Your task to perform on an android device: Turn off the flashlight Image 0: 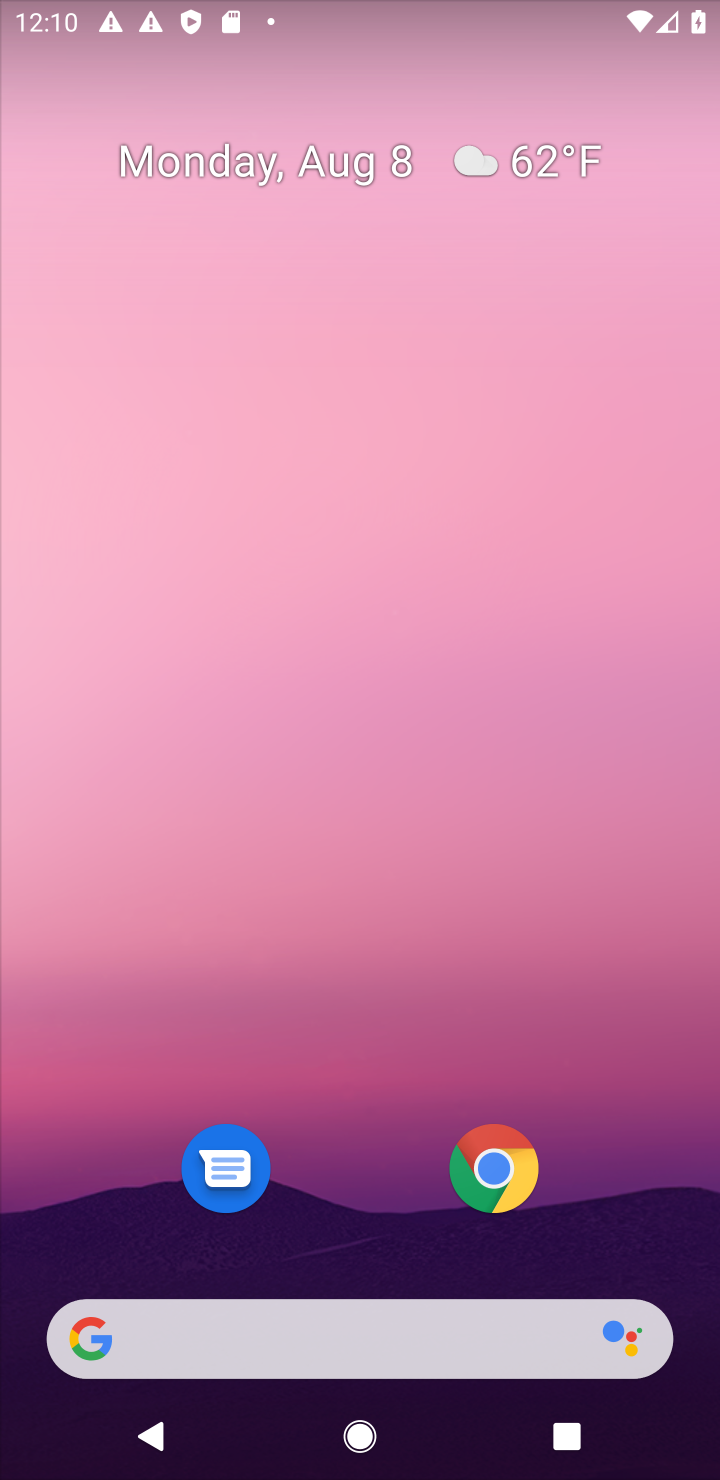
Step 0: drag from (346, 1274) to (264, 39)
Your task to perform on an android device: Turn off the flashlight Image 1: 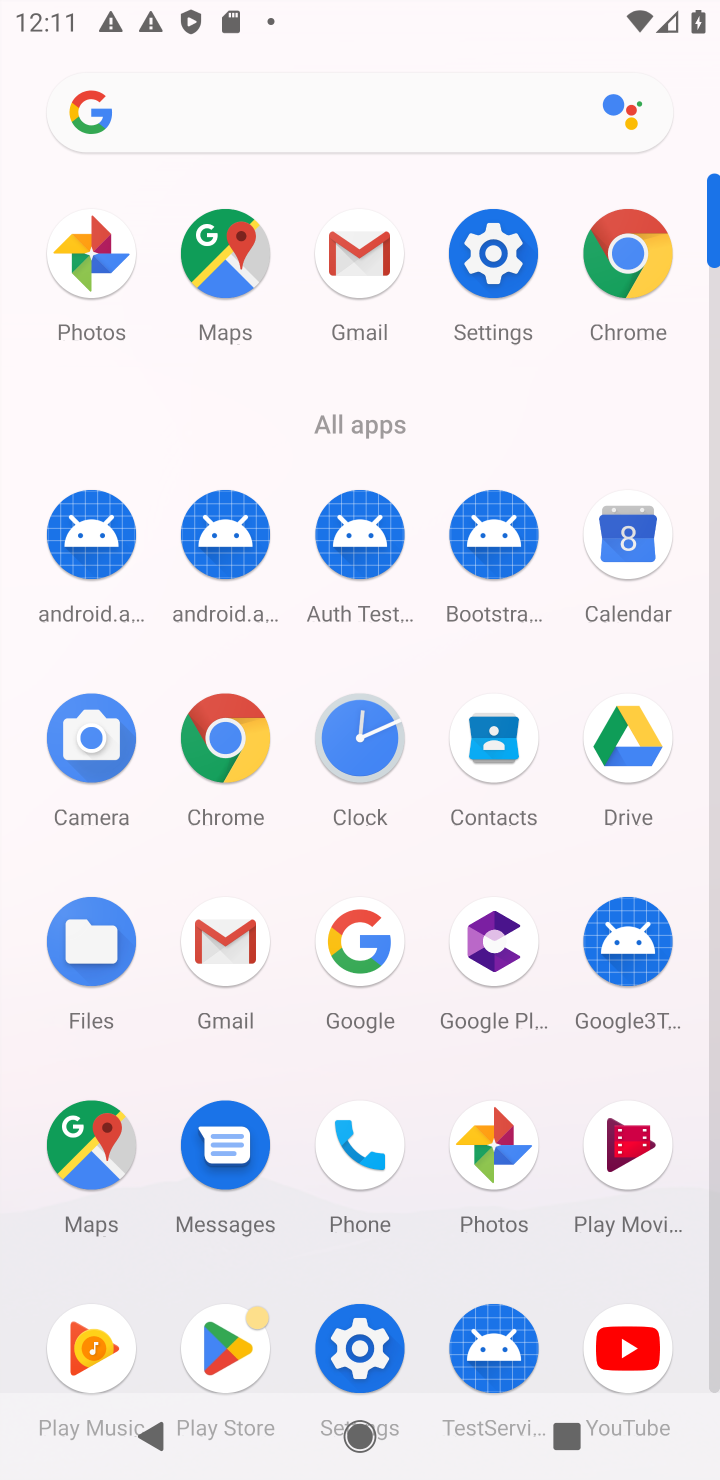
Step 1: click (480, 259)
Your task to perform on an android device: Turn off the flashlight Image 2: 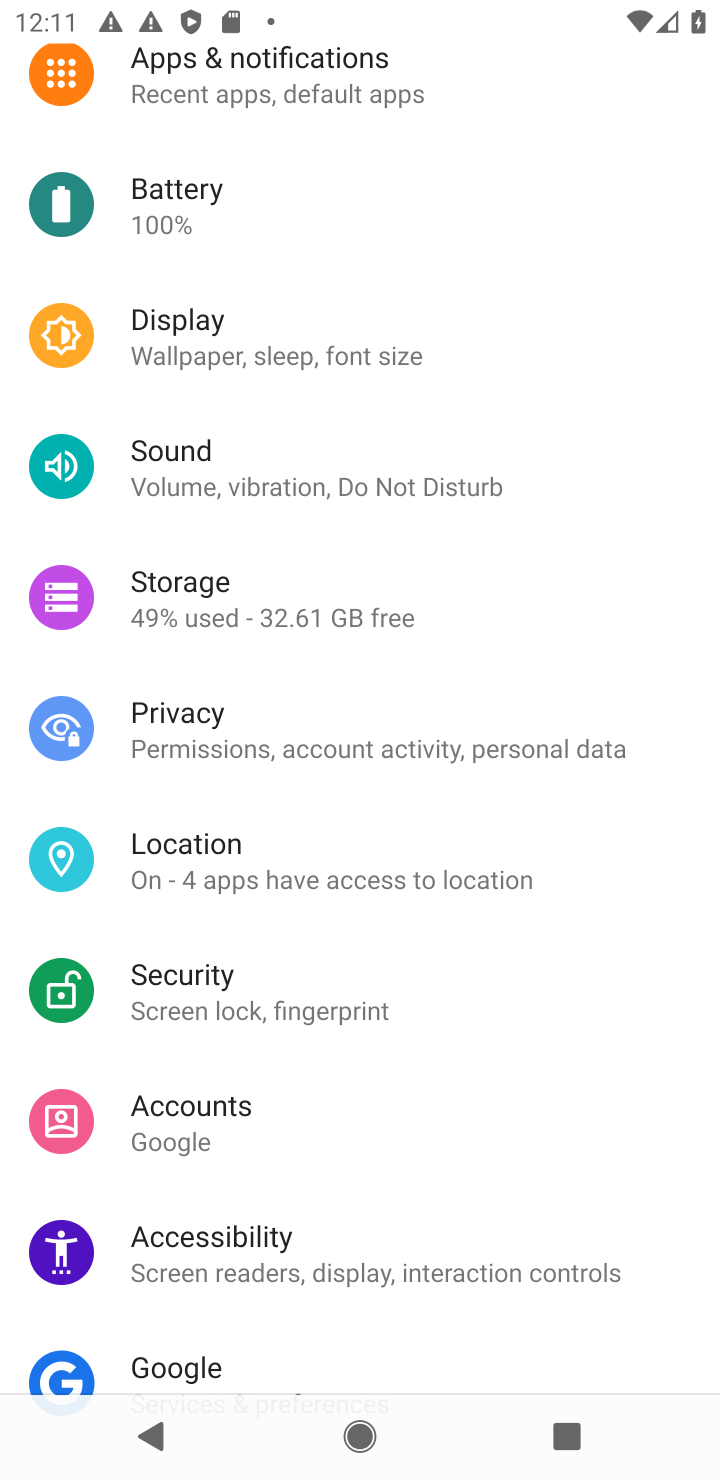
Step 2: task complete